Your task to perform on an android device: Open notification settings Image 0: 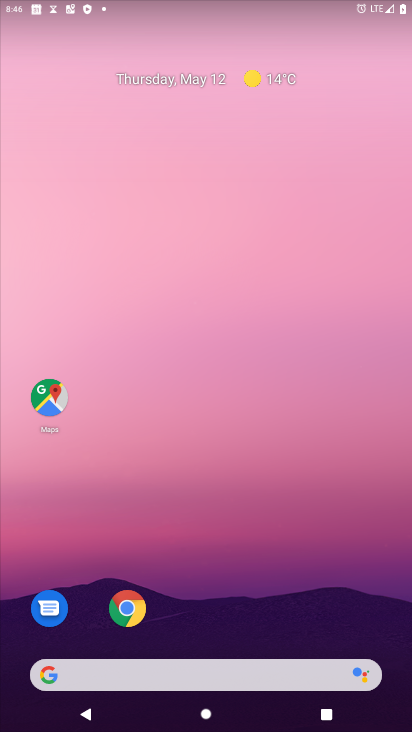
Step 0: drag from (197, 656) to (196, 293)
Your task to perform on an android device: Open notification settings Image 1: 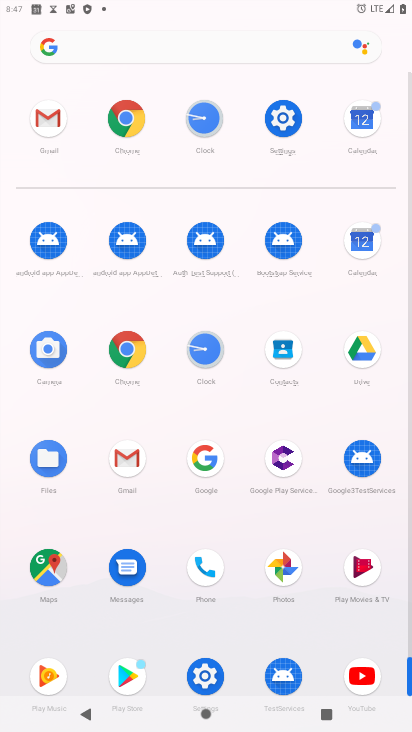
Step 1: click (287, 119)
Your task to perform on an android device: Open notification settings Image 2: 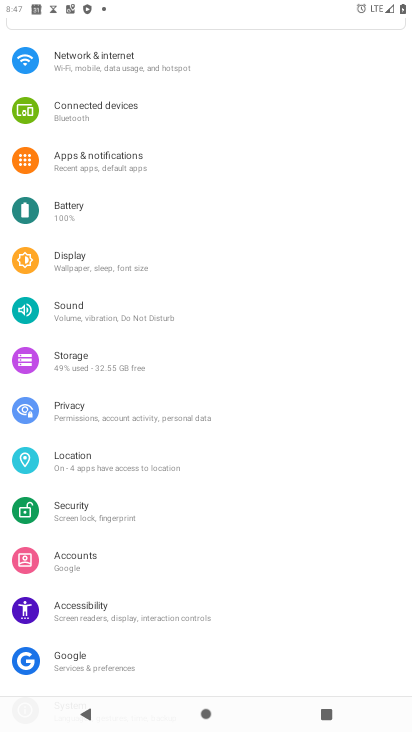
Step 2: click (123, 156)
Your task to perform on an android device: Open notification settings Image 3: 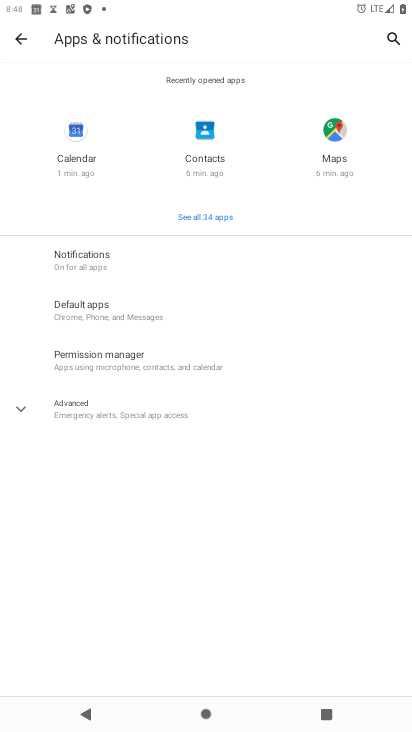
Step 3: click (71, 409)
Your task to perform on an android device: Open notification settings Image 4: 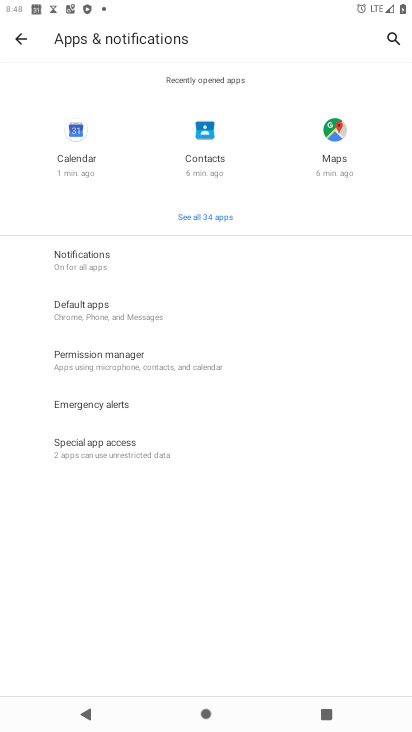
Step 4: task complete